Your task to perform on an android device: delete browsing data in the chrome app Image 0: 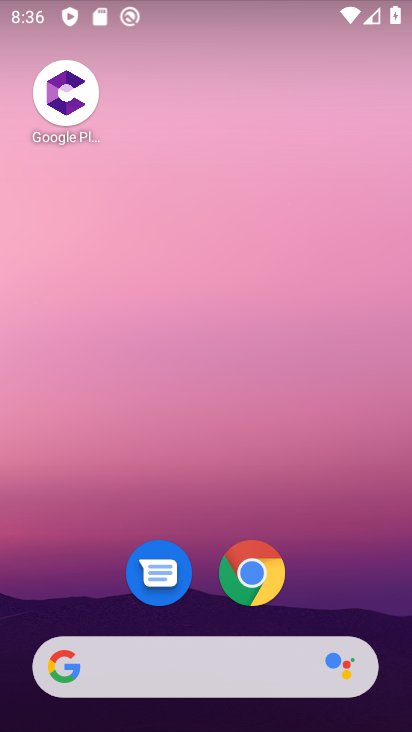
Step 0: click (252, 592)
Your task to perform on an android device: delete browsing data in the chrome app Image 1: 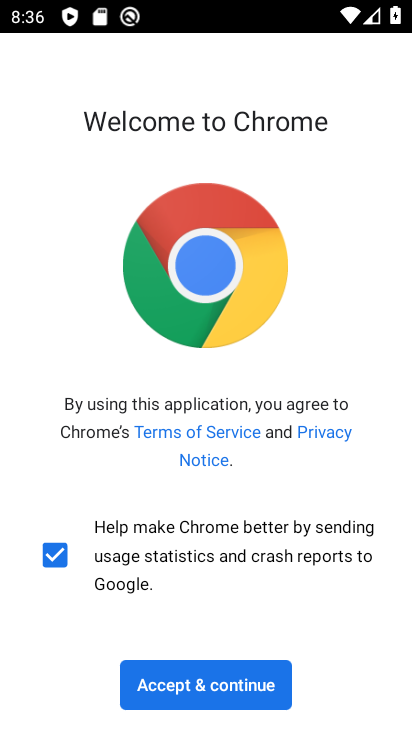
Step 1: click (260, 670)
Your task to perform on an android device: delete browsing data in the chrome app Image 2: 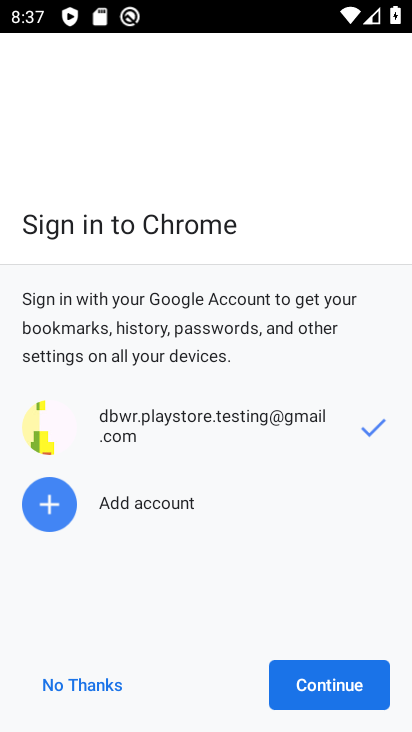
Step 2: click (351, 687)
Your task to perform on an android device: delete browsing data in the chrome app Image 3: 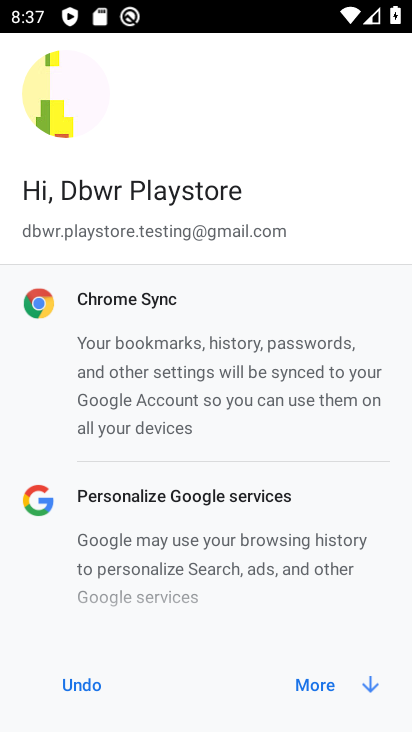
Step 3: click (329, 686)
Your task to perform on an android device: delete browsing data in the chrome app Image 4: 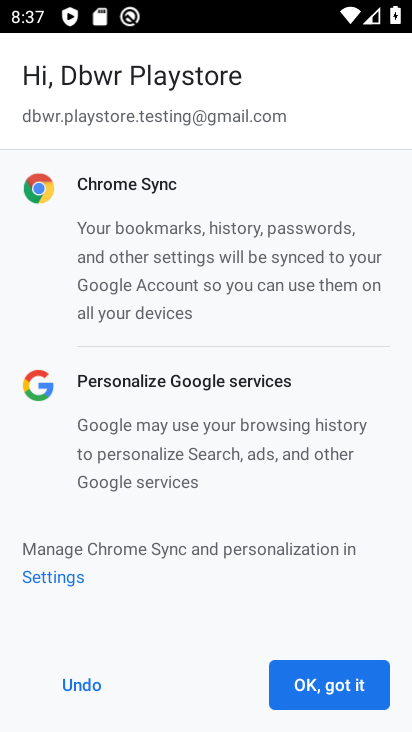
Step 4: click (336, 676)
Your task to perform on an android device: delete browsing data in the chrome app Image 5: 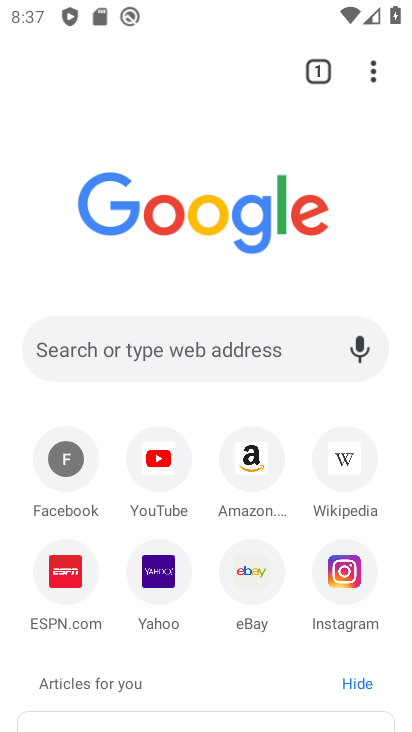
Step 5: click (365, 66)
Your task to perform on an android device: delete browsing data in the chrome app Image 6: 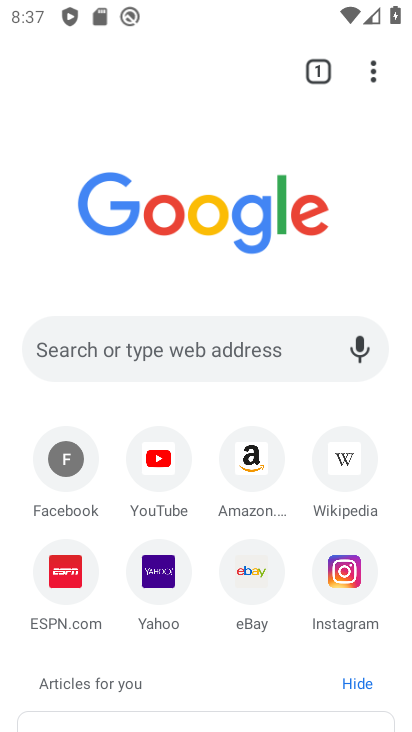
Step 6: click (365, 66)
Your task to perform on an android device: delete browsing data in the chrome app Image 7: 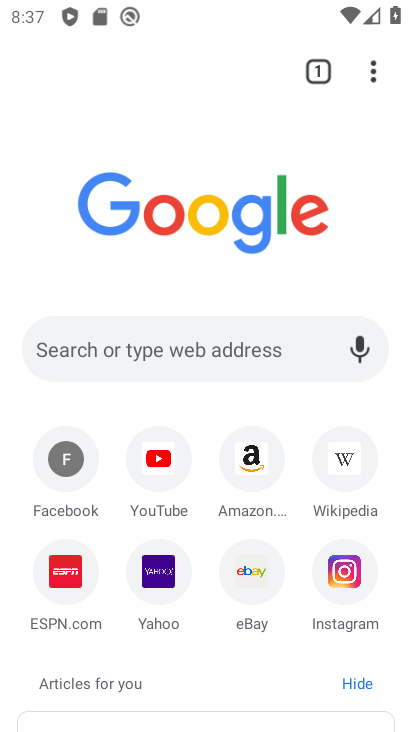
Step 7: drag from (368, 75) to (133, 617)
Your task to perform on an android device: delete browsing data in the chrome app Image 8: 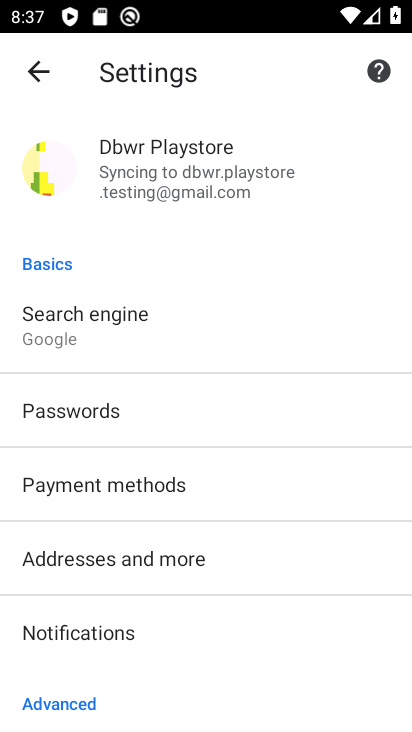
Step 8: drag from (149, 584) to (137, 138)
Your task to perform on an android device: delete browsing data in the chrome app Image 9: 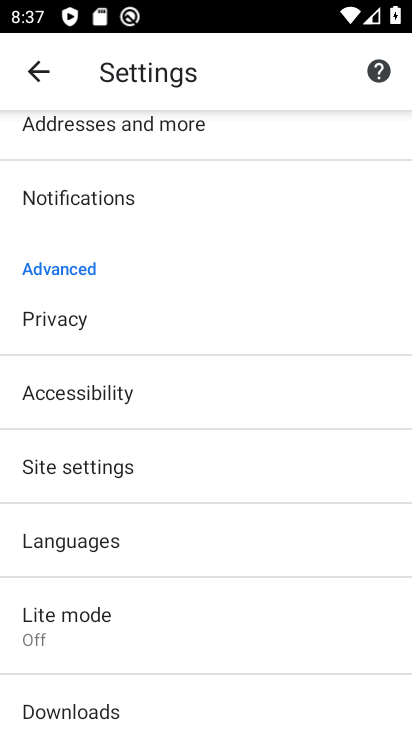
Step 9: click (145, 477)
Your task to perform on an android device: delete browsing data in the chrome app Image 10: 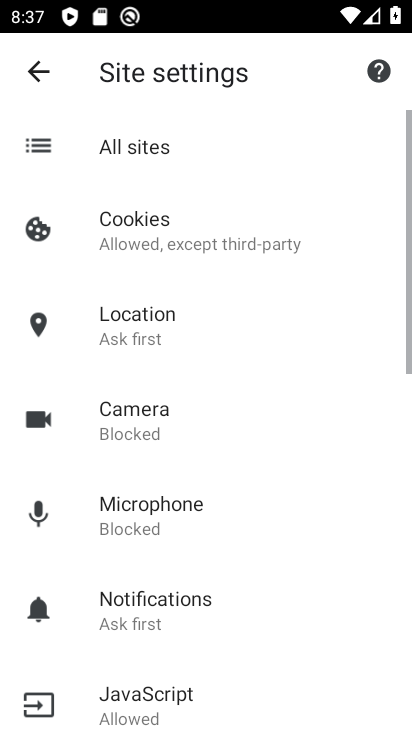
Step 10: drag from (155, 518) to (116, 329)
Your task to perform on an android device: delete browsing data in the chrome app Image 11: 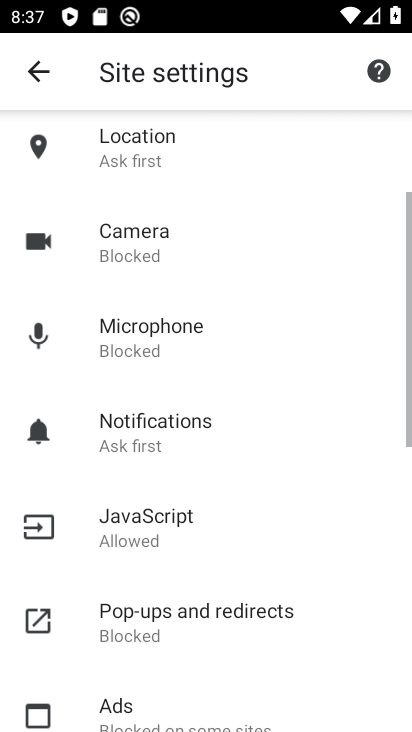
Step 11: click (28, 77)
Your task to perform on an android device: delete browsing data in the chrome app Image 12: 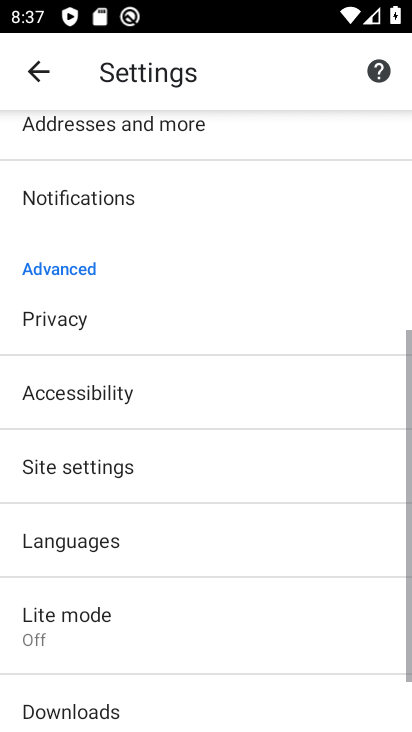
Step 12: click (85, 298)
Your task to perform on an android device: delete browsing data in the chrome app Image 13: 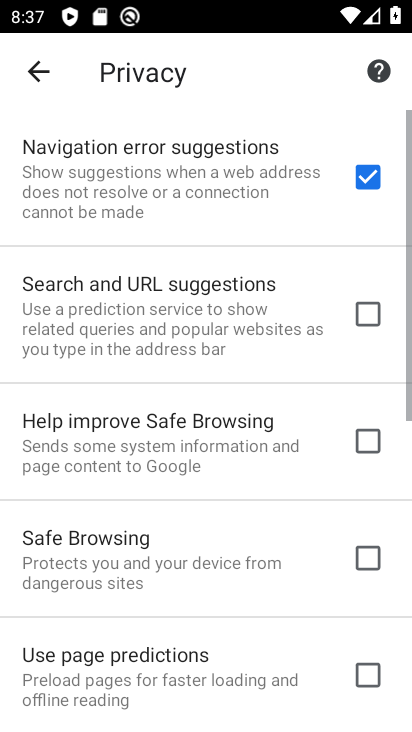
Step 13: drag from (149, 588) to (56, 101)
Your task to perform on an android device: delete browsing data in the chrome app Image 14: 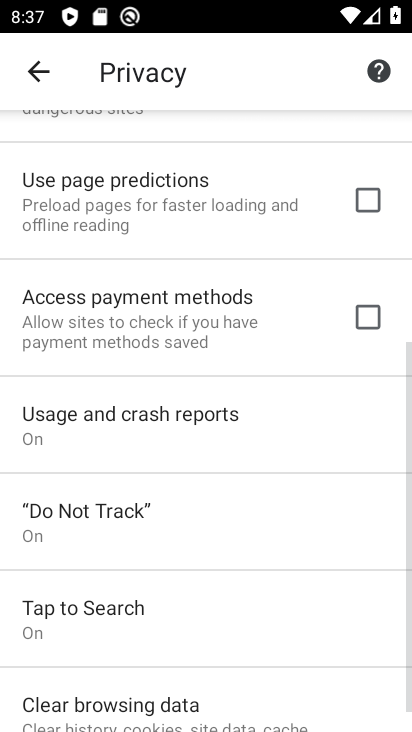
Step 14: drag from (121, 657) to (95, 285)
Your task to perform on an android device: delete browsing data in the chrome app Image 15: 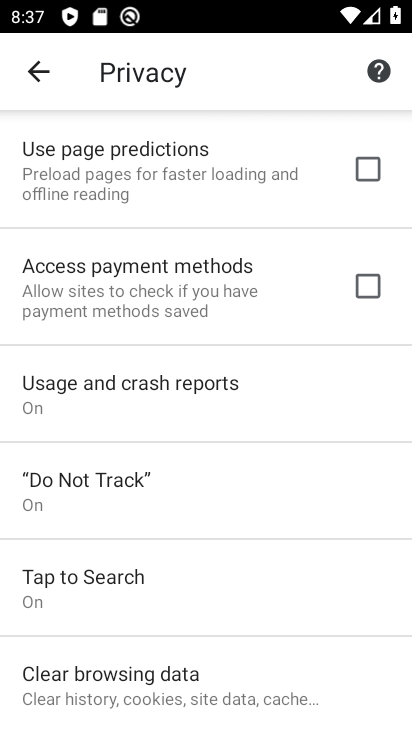
Step 15: click (129, 681)
Your task to perform on an android device: delete browsing data in the chrome app Image 16: 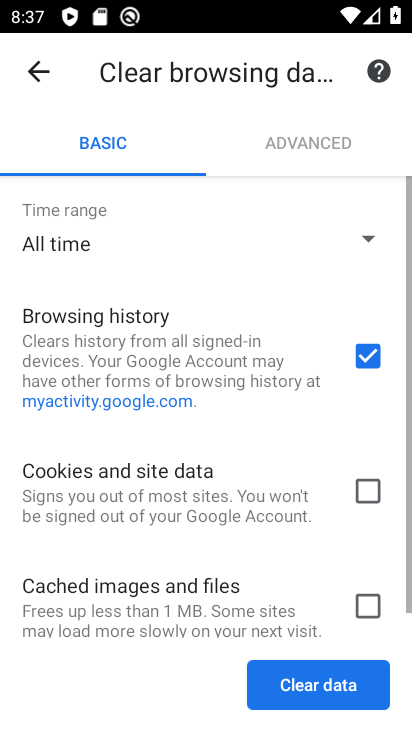
Step 16: click (307, 697)
Your task to perform on an android device: delete browsing data in the chrome app Image 17: 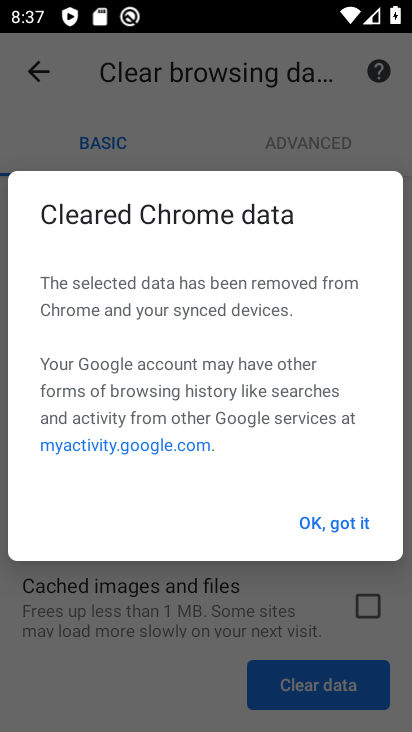
Step 17: click (326, 524)
Your task to perform on an android device: delete browsing data in the chrome app Image 18: 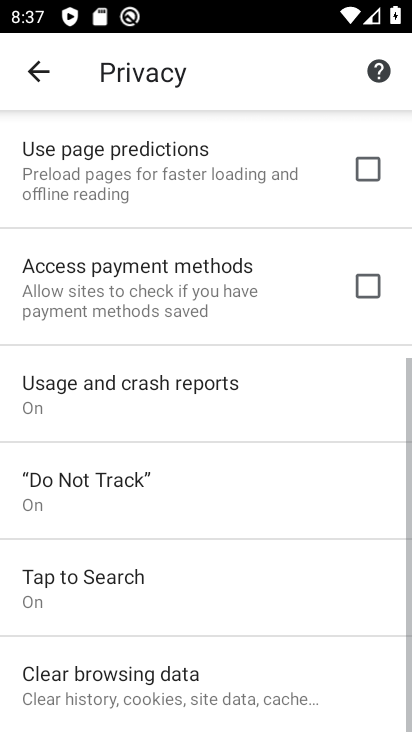
Step 18: task complete